Your task to perform on an android device: open device folders in google photos Image 0: 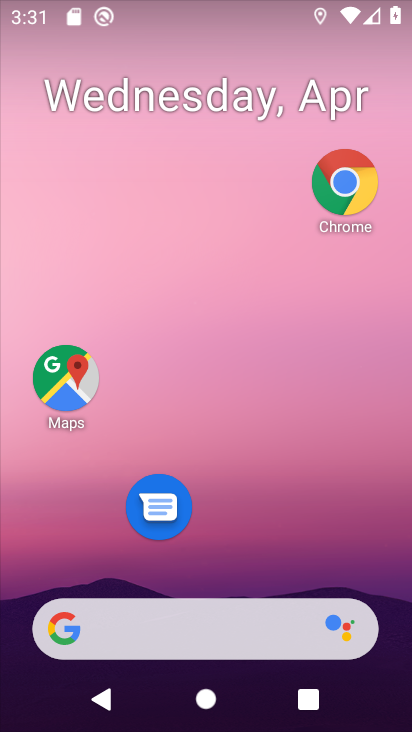
Step 0: drag from (223, 478) to (250, 108)
Your task to perform on an android device: open device folders in google photos Image 1: 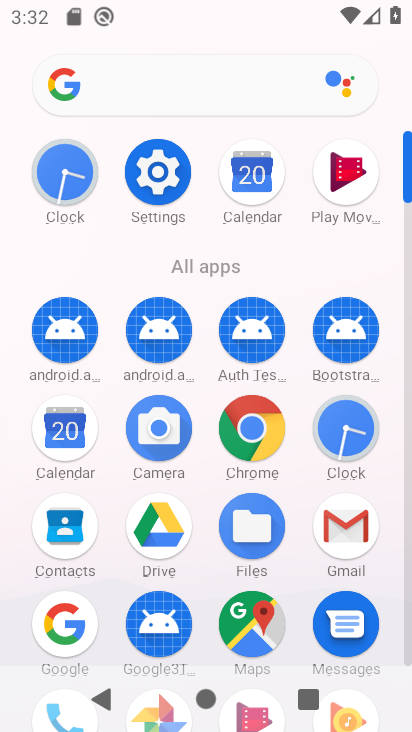
Step 1: drag from (197, 558) to (234, 316)
Your task to perform on an android device: open device folders in google photos Image 2: 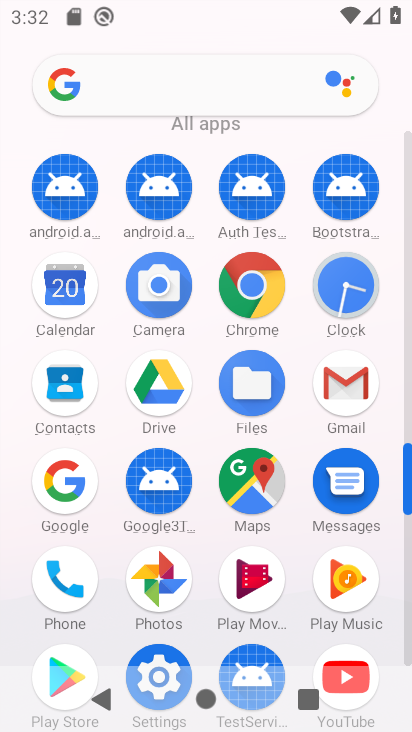
Step 2: click (163, 591)
Your task to perform on an android device: open device folders in google photos Image 3: 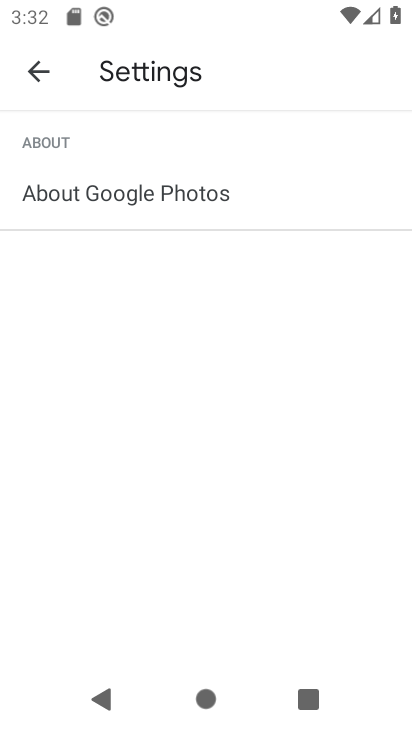
Step 3: click (41, 62)
Your task to perform on an android device: open device folders in google photos Image 4: 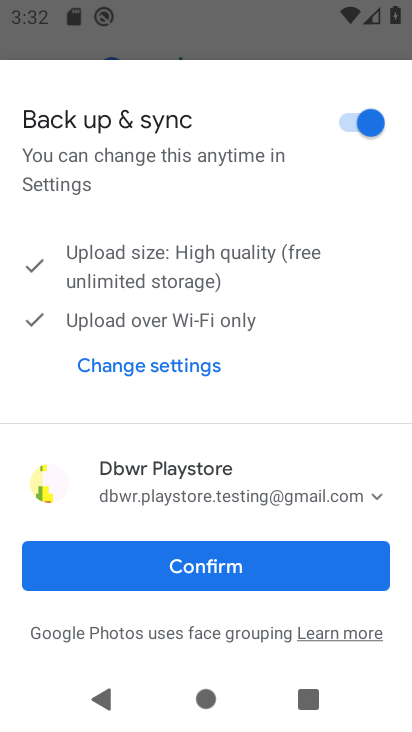
Step 4: click (199, 571)
Your task to perform on an android device: open device folders in google photos Image 5: 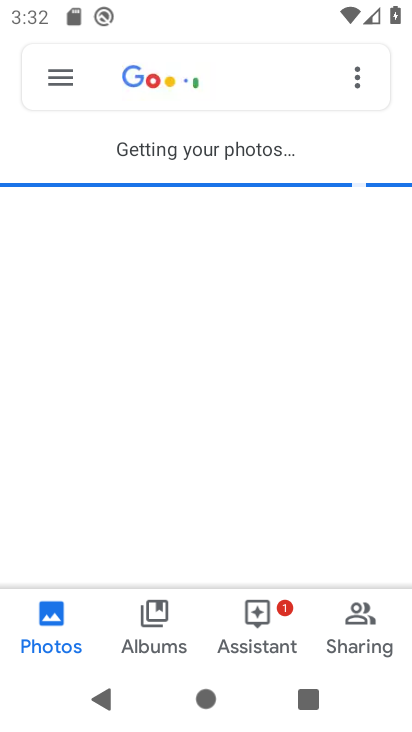
Step 5: click (59, 85)
Your task to perform on an android device: open device folders in google photos Image 6: 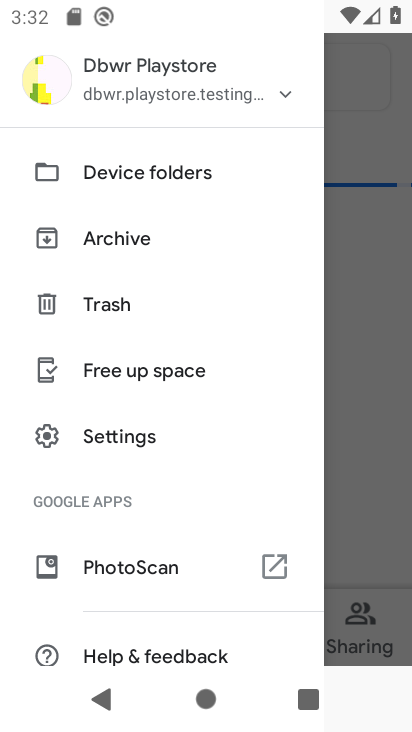
Step 6: drag from (118, 588) to (192, 251)
Your task to perform on an android device: open device folders in google photos Image 7: 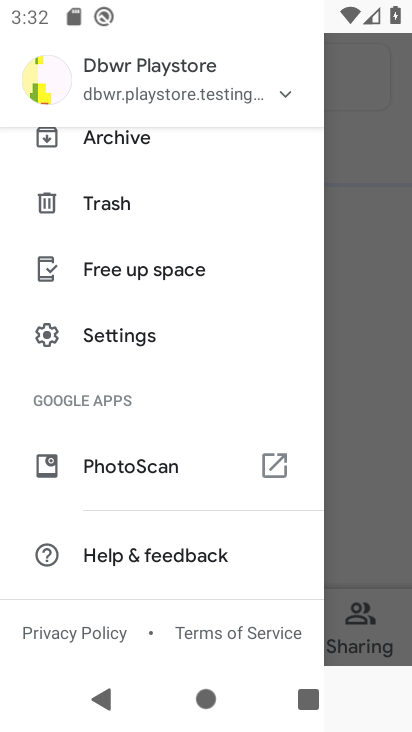
Step 7: drag from (132, 209) to (116, 554)
Your task to perform on an android device: open device folders in google photos Image 8: 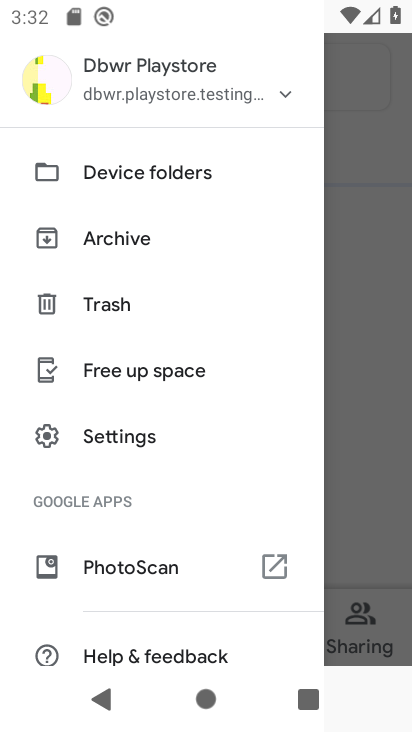
Step 8: click (132, 178)
Your task to perform on an android device: open device folders in google photos Image 9: 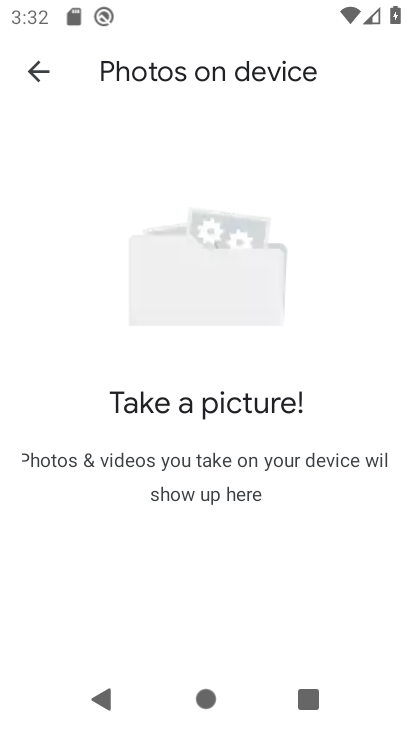
Step 9: task complete